Your task to perform on an android device: Go to Yahoo.com Image 0: 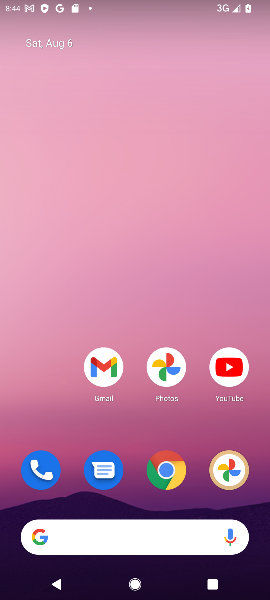
Step 0: drag from (151, 416) to (265, 12)
Your task to perform on an android device: Go to Yahoo.com Image 1: 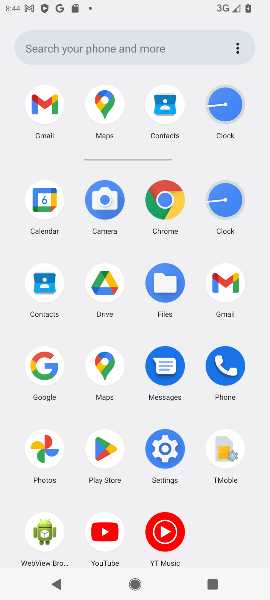
Step 1: click (171, 201)
Your task to perform on an android device: Go to Yahoo.com Image 2: 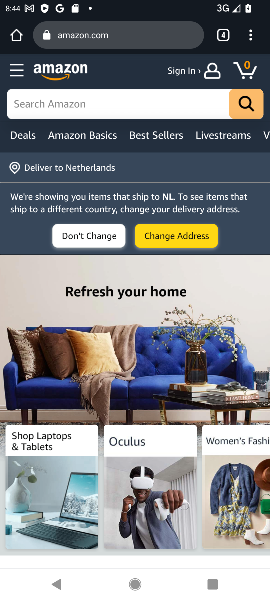
Step 2: click (152, 36)
Your task to perform on an android device: Go to Yahoo.com Image 3: 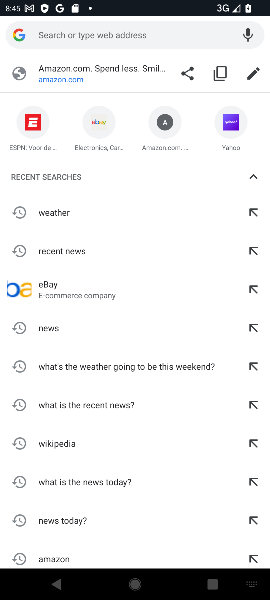
Step 3: type "yahoo.com"
Your task to perform on an android device: Go to Yahoo.com Image 4: 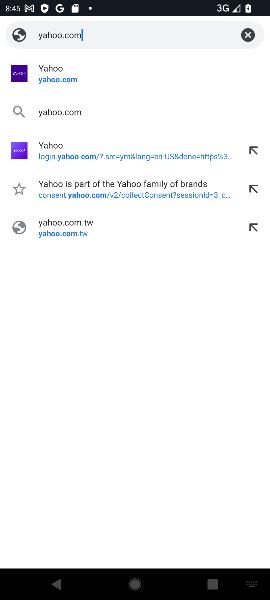
Step 4: click (105, 75)
Your task to perform on an android device: Go to Yahoo.com Image 5: 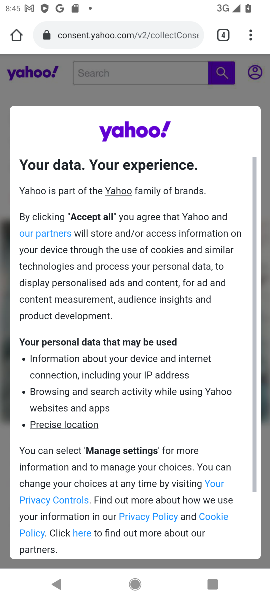
Step 5: task complete